Your task to perform on an android device: find which apps use the phone's location Image 0: 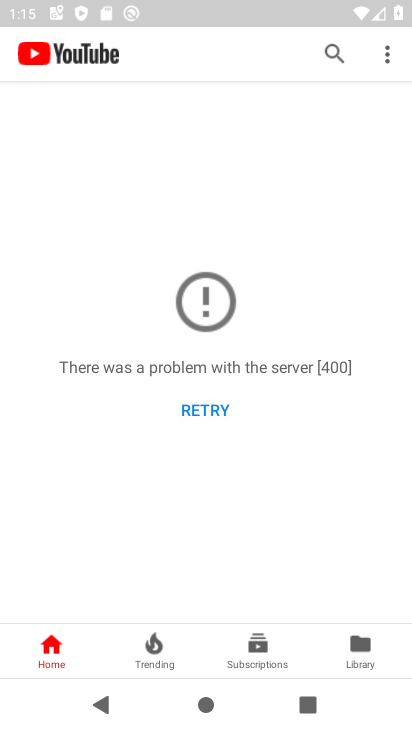
Step 0: press home button
Your task to perform on an android device: find which apps use the phone's location Image 1: 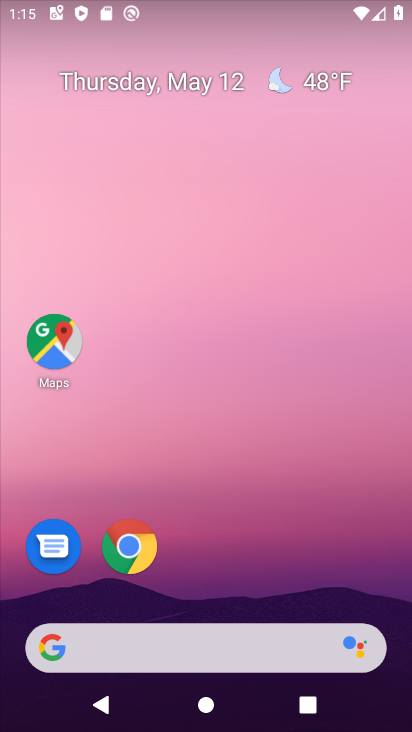
Step 1: drag from (159, 650) to (321, 27)
Your task to perform on an android device: find which apps use the phone's location Image 2: 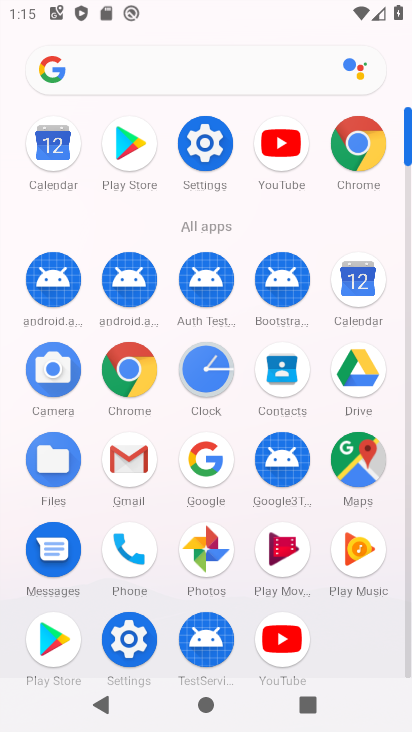
Step 2: click (207, 137)
Your task to perform on an android device: find which apps use the phone's location Image 3: 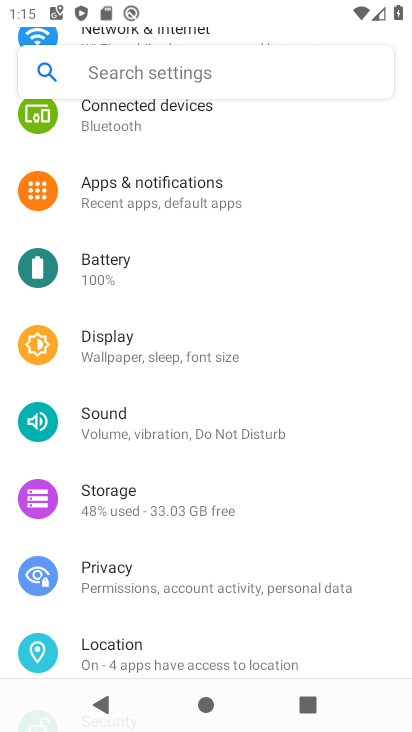
Step 3: click (146, 658)
Your task to perform on an android device: find which apps use the phone's location Image 4: 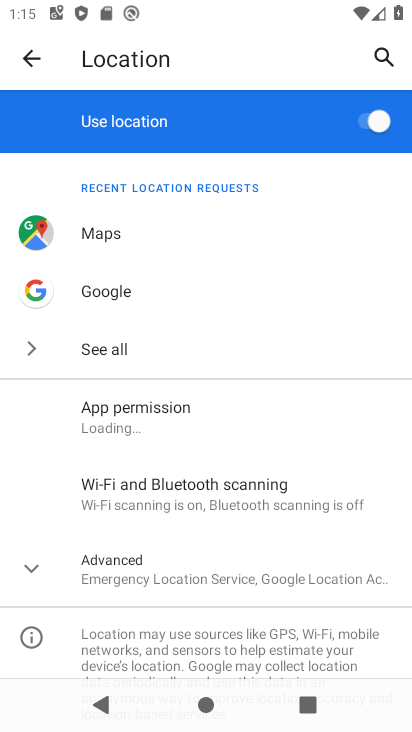
Step 4: click (104, 411)
Your task to perform on an android device: find which apps use the phone's location Image 5: 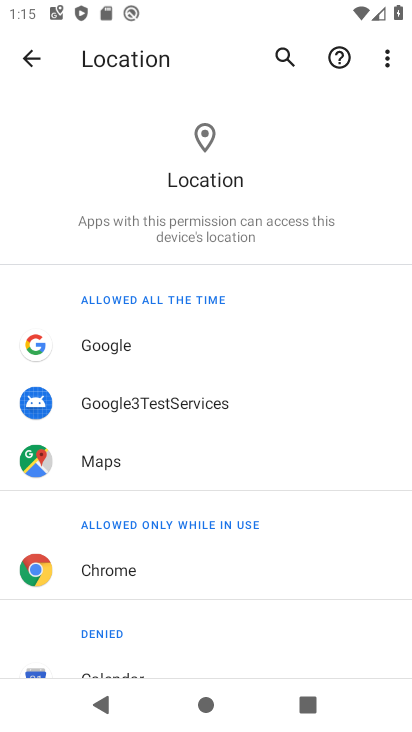
Step 5: drag from (222, 584) to (400, 69)
Your task to perform on an android device: find which apps use the phone's location Image 6: 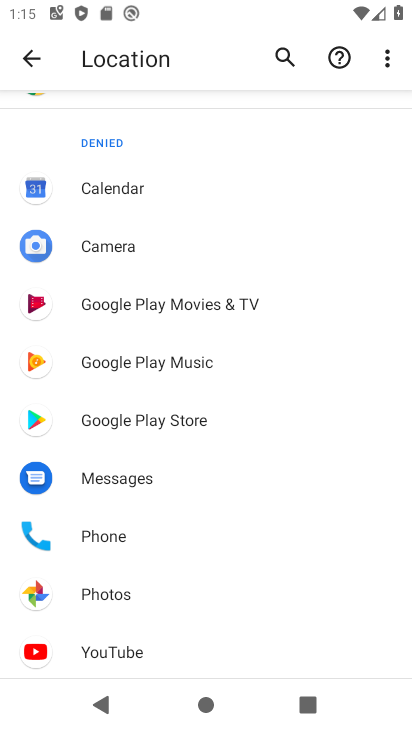
Step 6: click (92, 528)
Your task to perform on an android device: find which apps use the phone's location Image 7: 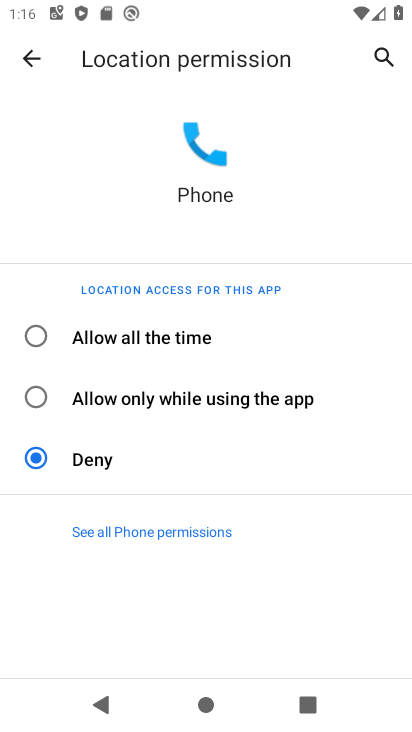
Step 7: task complete